Your task to perform on an android device: Go to internet settings Image 0: 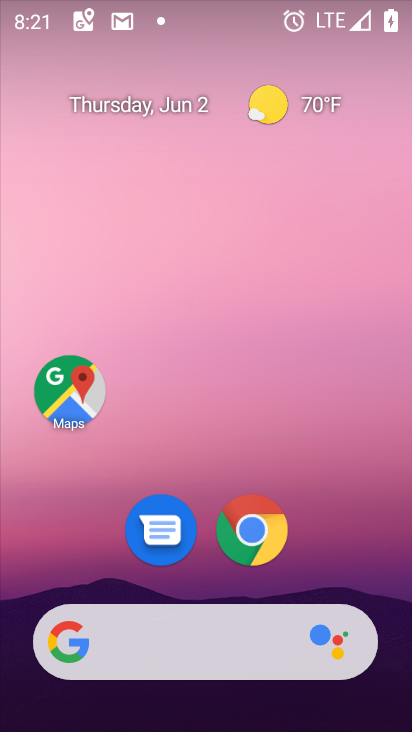
Step 0: drag from (148, 526) to (145, 295)
Your task to perform on an android device: Go to internet settings Image 1: 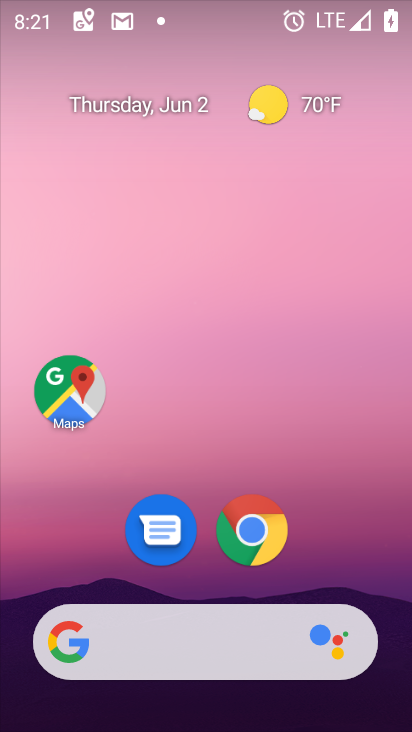
Step 1: drag from (196, 602) to (202, 177)
Your task to perform on an android device: Go to internet settings Image 2: 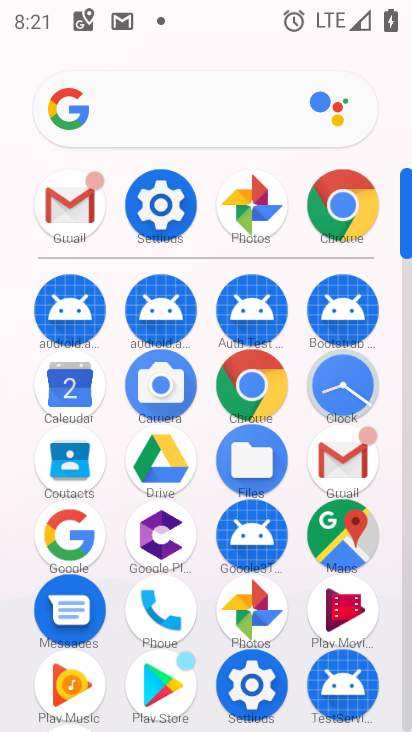
Step 2: click (166, 215)
Your task to perform on an android device: Go to internet settings Image 3: 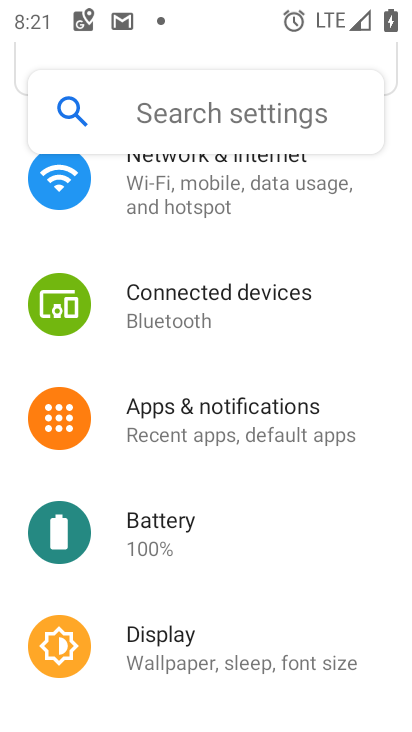
Step 3: drag from (206, 209) to (206, 540)
Your task to perform on an android device: Go to internet settings Image 4: 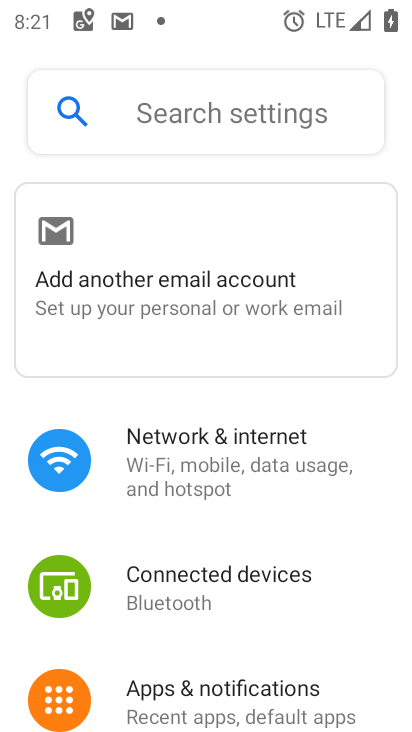
Step 4: click (175, 642)
Your task to perform on an android device: Go to internet settings Image 5: 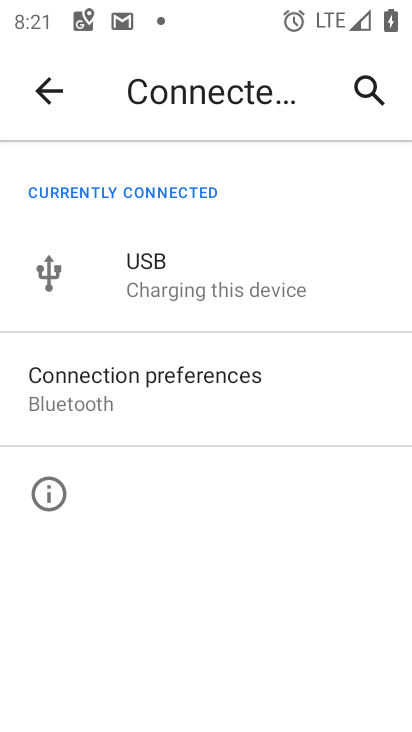
Step 5: click (47, 88)
Your task to perform on an android device: Go to internet settings Image 6: 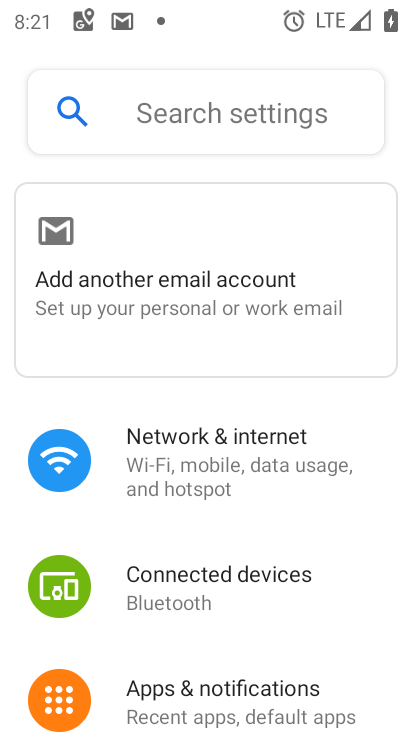
Step 6: click (177, 479)
Your task to perform on an android device: Go to internet settings Image 7: 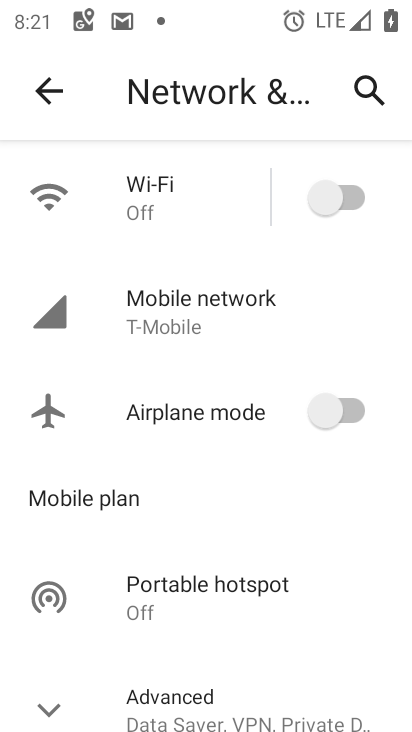
Step 7: click (153, 194)
Your task to perform on an android device: Go to internet settings Image 8: 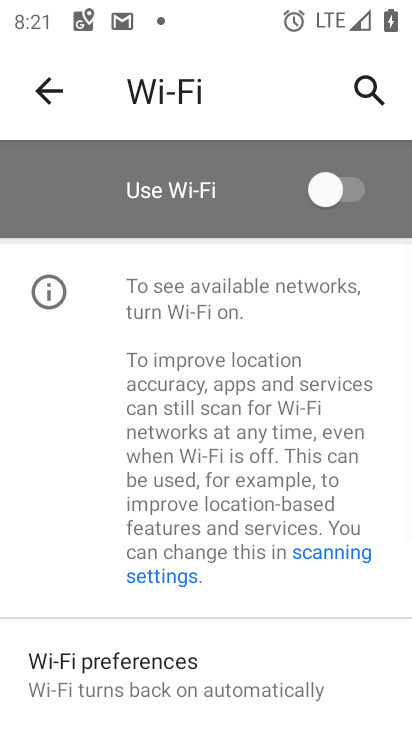
Step 8: click (340, 184)
Your task to perform on an android device: Go to internet settings Image 9: 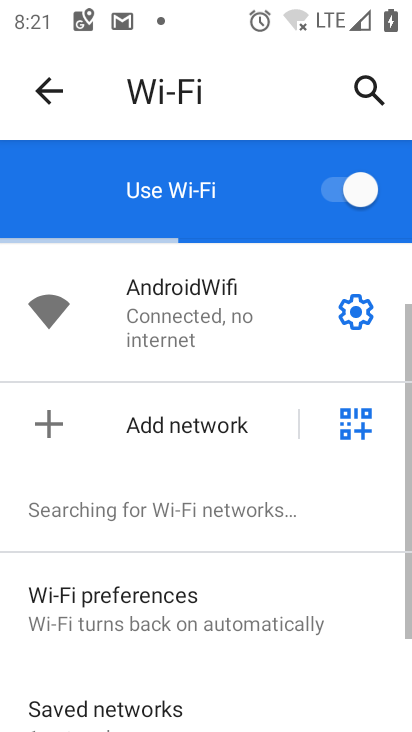
Step 9: click (346, 290)
Your task to perform on an android device: Go to internet settings Image 10: 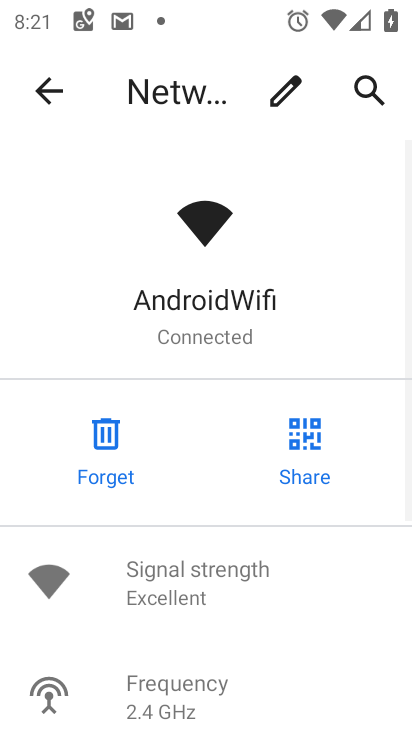
Step 10: drag from (257, 677) to (222, 357)
Your task to perform on an android device: Go to internet settings Image 11: 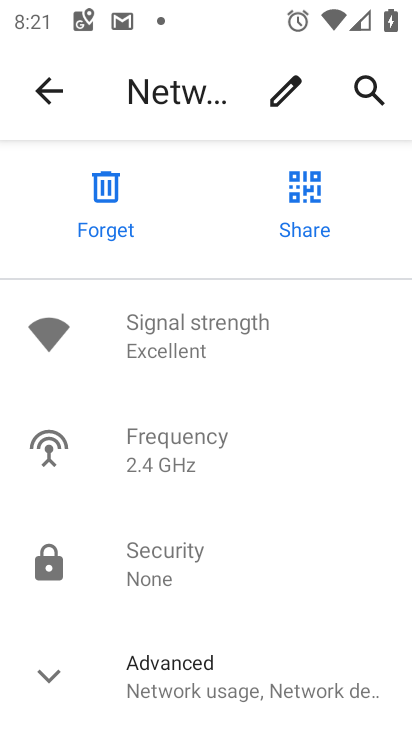
Step 11: click (115, 678)
Your task to perform on an android device: Go to internet settings Image 12: 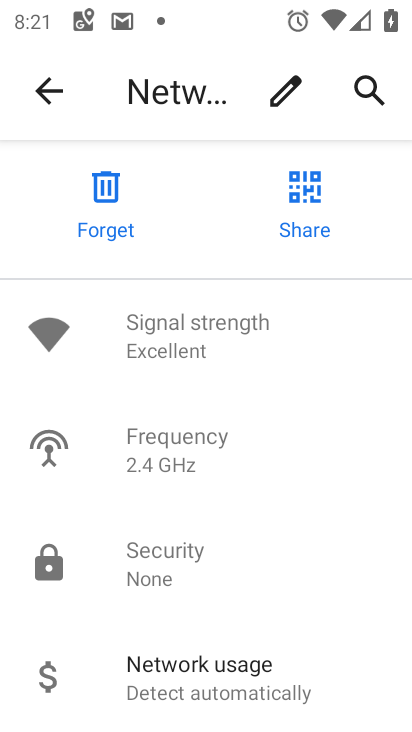
Step 12: task complete